Your task to perform on an android device: Go to ESPN.com Image 0: 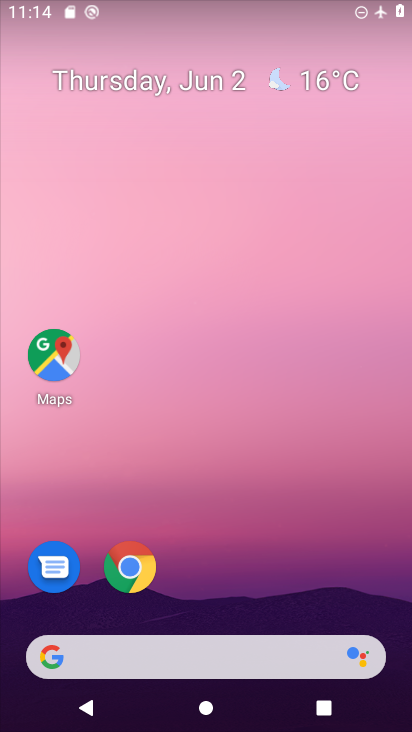
Step 0: click (131, 569)
Your task to perform on an android device: Go to ESPN.com Image 1: 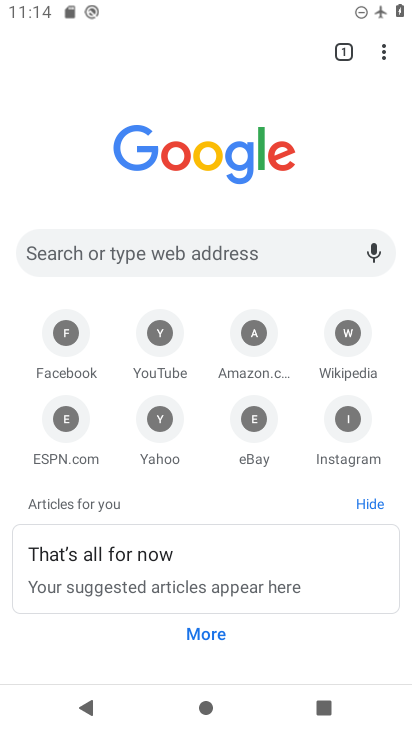
Step 1: click (75, 425)
Your task to perform on an android device: Go to ESPN.com Image 2: 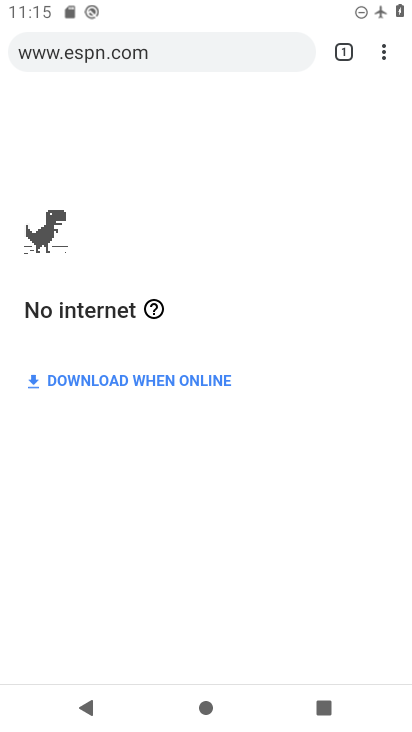
Step 2: task complete